Your task to perform on an android device: What's the weather? Image 0: 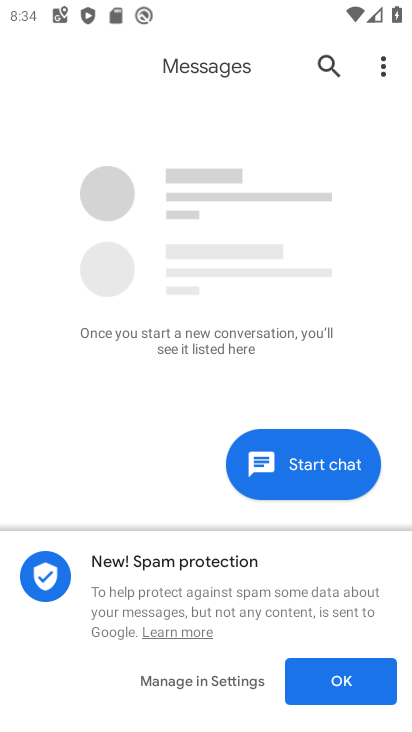
Step 0: press home button
Your task to perform on an android device: What's the weather? Image 1: 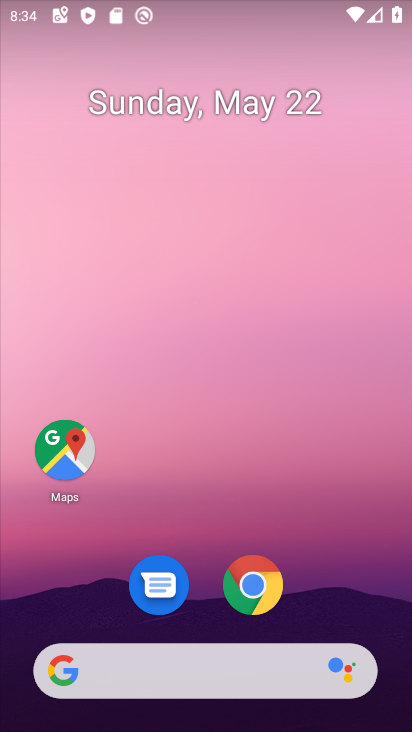
Step 1: click (130, 673)
Your task to perform on an android device: What's the weather? Image 2: 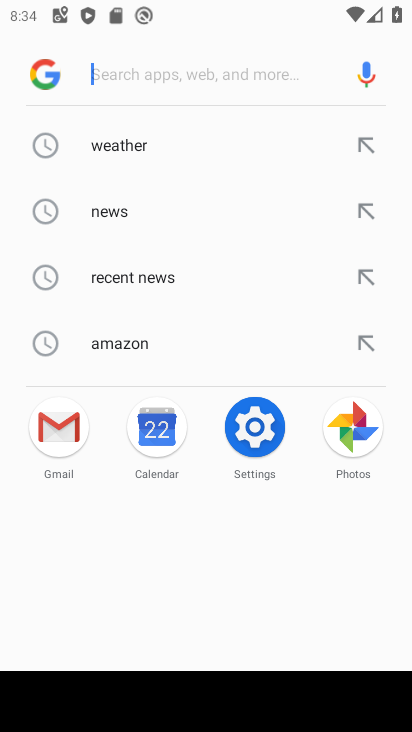
Step 2: click (101, 141)
Your task to perform on an android device: What's the weather? Image 3: 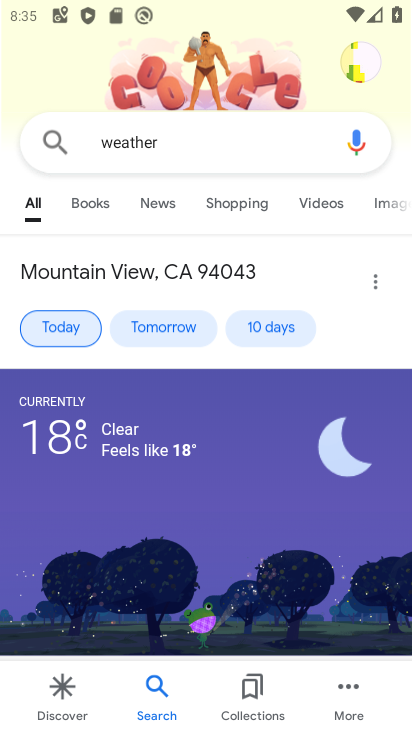
Step 3: click (75, 328)
Your task to perform on an android device: What's the weather? Image 4: 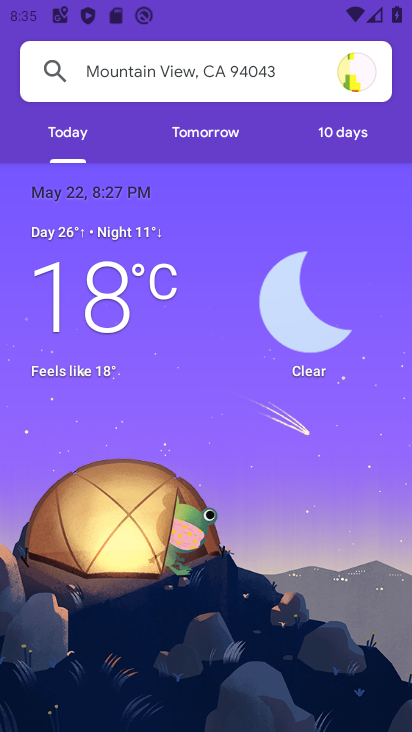
Step 4: task complete